Your task to perform on an android device: Open calendar and show me the fourth week of next month Image 0: 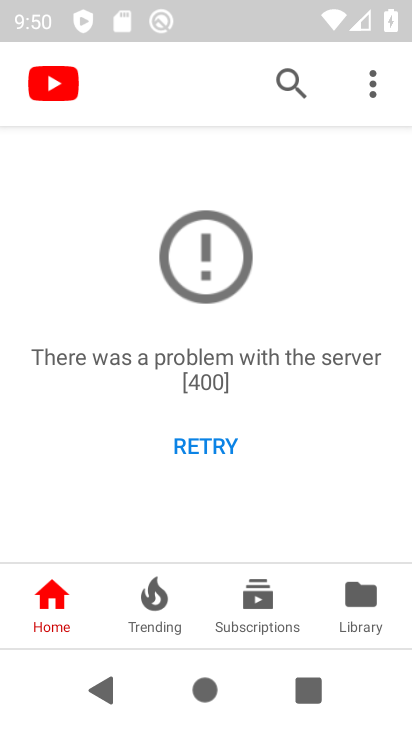
Step 0: press home button
Your task to perform on an android device: Open calendar and show me the fourth week of next month Image 1: 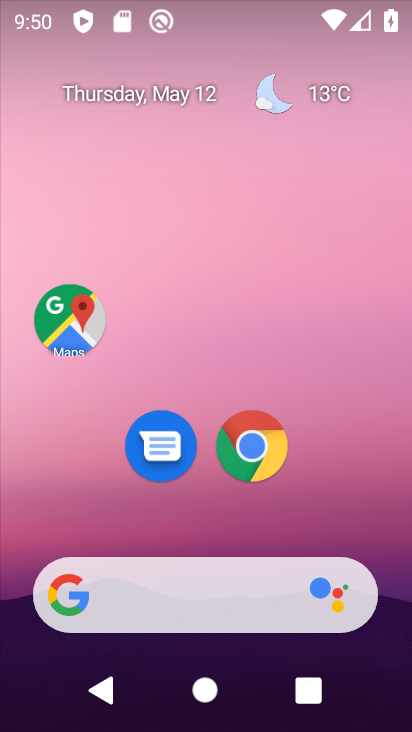
Step 1: drag from (188, 462) to (259, 3)
Your task to perform on an android device: Open calendar and show me the fourth week of next month Image 2: 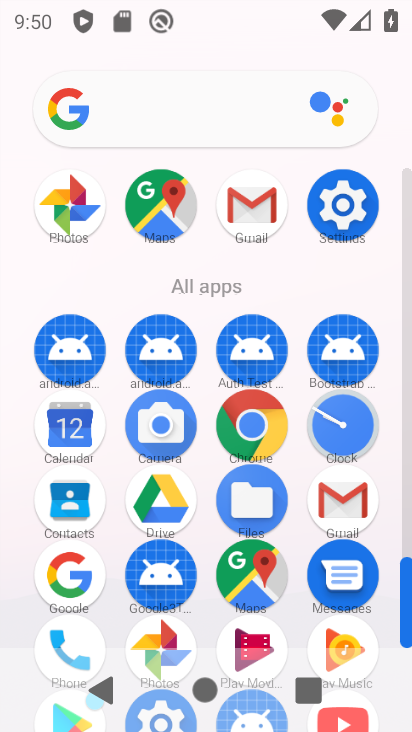
Step 2: click (83, 423)
Your task to perform on an android device: Open calendar and show me the fourth week of next month Image 3: 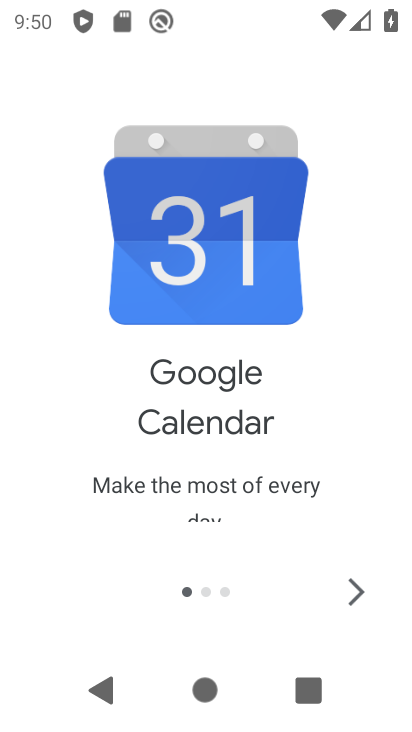
Step 3: click (354, 595)
Your task to perform on an android device: Open calendar and show me the fourth week of next month Image 4: 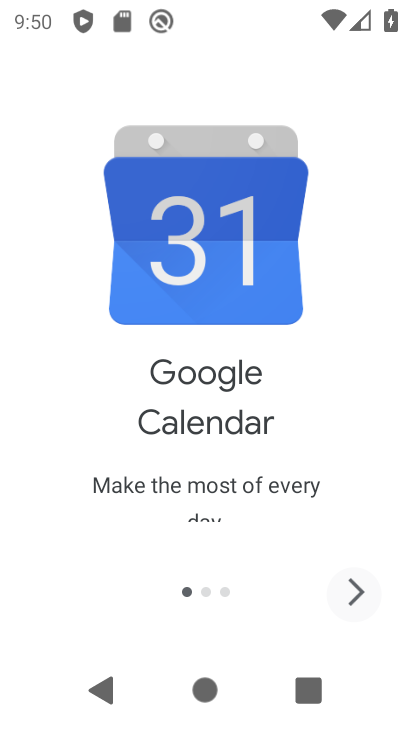
Step 4: click (354, 595)
Your task to perform on an android device: Open calendar and show me the fourth week of next month Image 5: 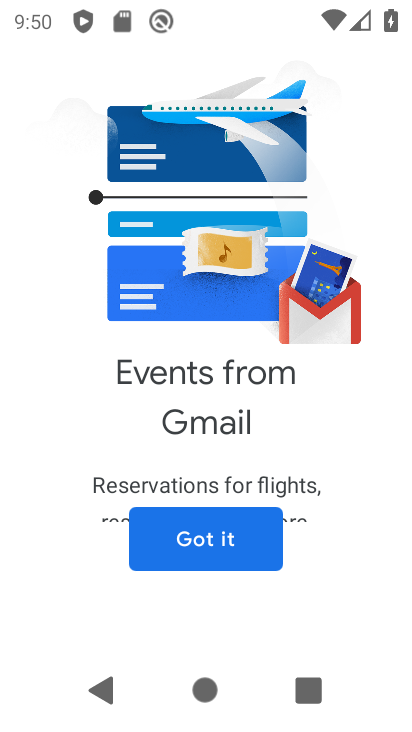
Step 5: click (354, 595)
Your task to perform on an android device: Open calendar and show me the fourth week of next month Image 6: 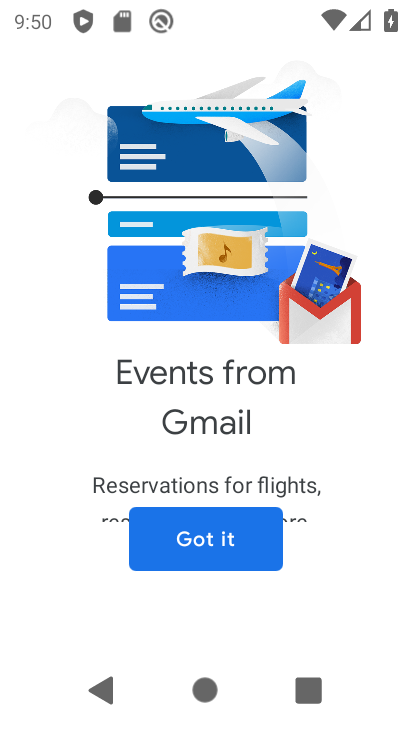
Step 6: click (252, 538)
Your task to perform on an android device: Open calendar and show me the fourth week of next month Image 7: 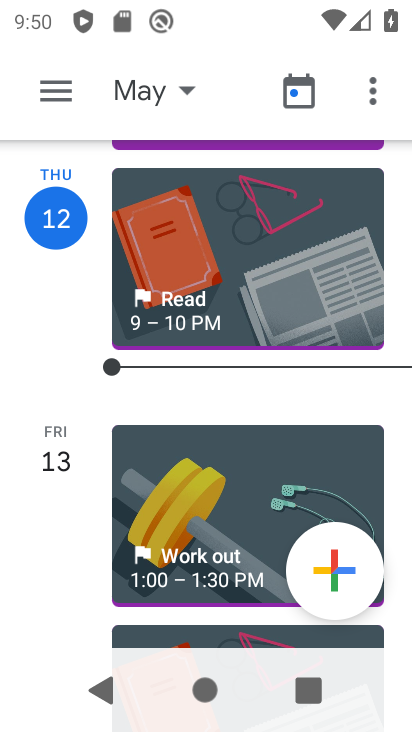
Step 7: click (184, 90)
Your task to perform on an android device: Open calendar and show me the fourth week of next month Image 8: 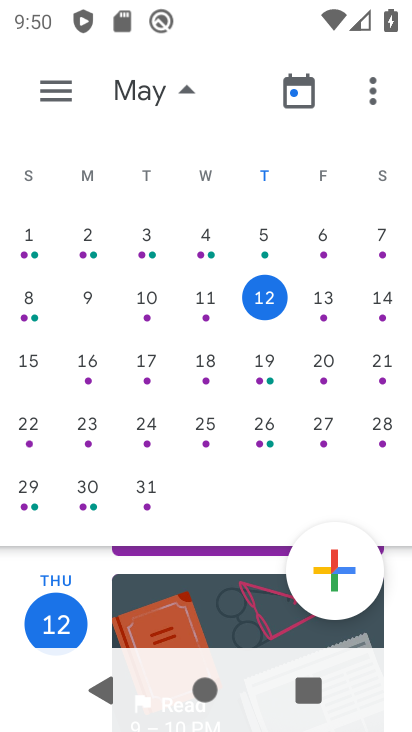
Step 8: drag from (375, 352) to (0, 191)
Your task to perform on an android device: Open calendar and show me the fourth week of next month Image 9: 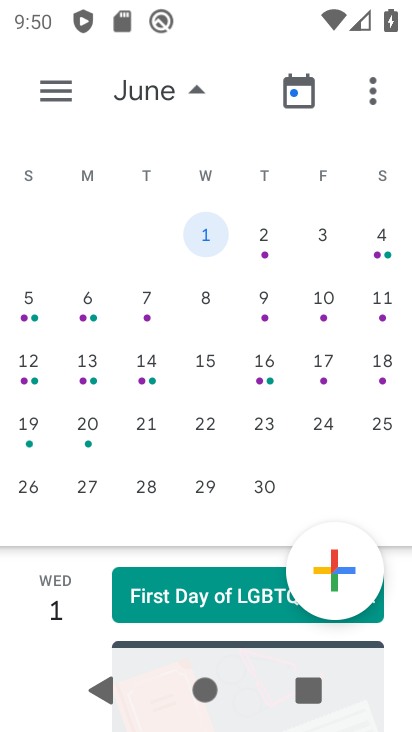
Step 9: click (64, 87)
Your task to perform on an android device: Open calendar and show me the fourth week of next month Image 10: 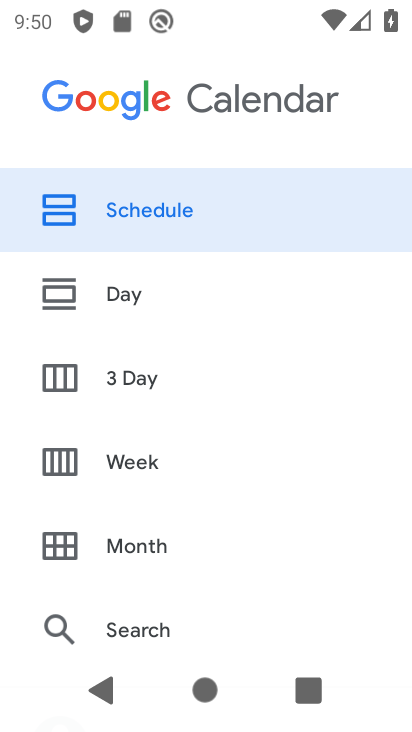
Step 10: click (134, 453)
Your task to perform on an android device: Open calendar and show me the fourth week of next month Image 11: 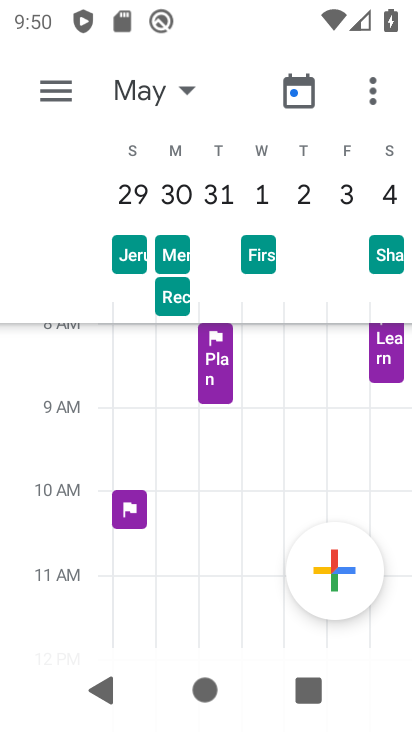
Step 11: task complete